Your task to perform on an android device: toggle javascript in the chrome app Image 0: 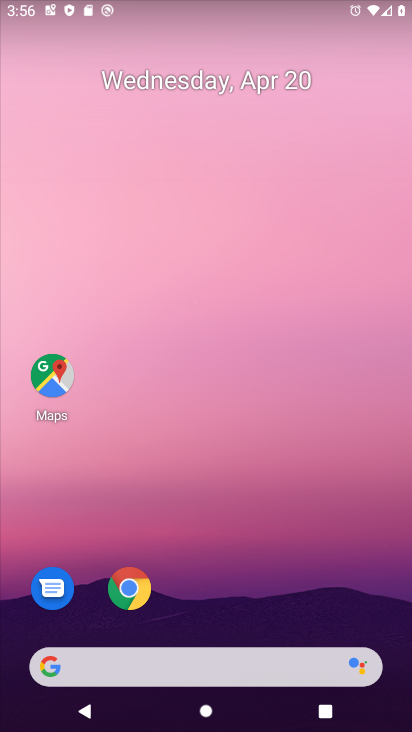
Step 0: click (142, 594)
Your task to perform on an android device: toggle javascript in the chrome app Image 1: 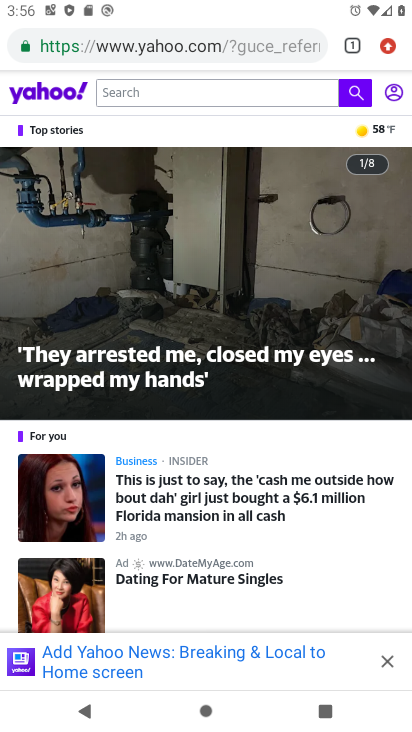
Step 1: click (388, 49)
Your task to perform on an android device: toggle javascript in the chrome app Image 2: 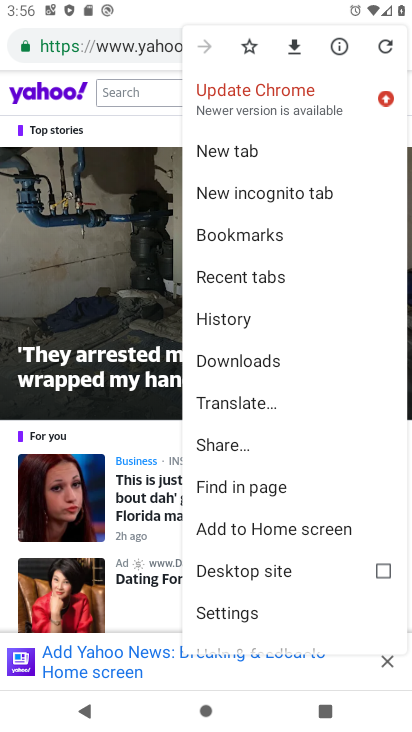
Step 2: click (251, 613)
Your task to perform on an android device: toggle javascript in the chrome app Image 3: 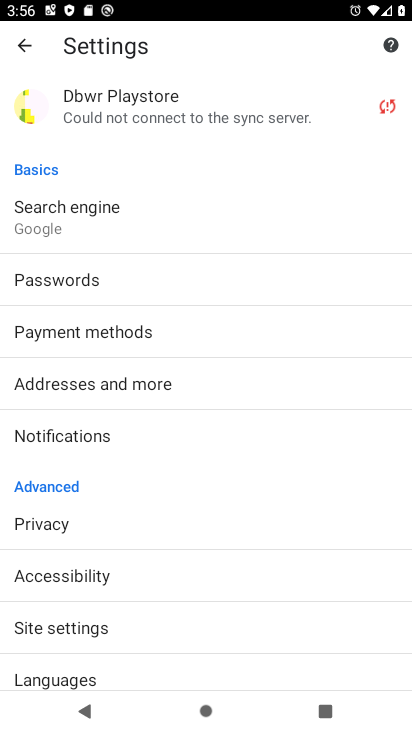
Step 3: click (135, 629)
Your task to perform on an android device: toggle javascript in the chrome app Image 4: 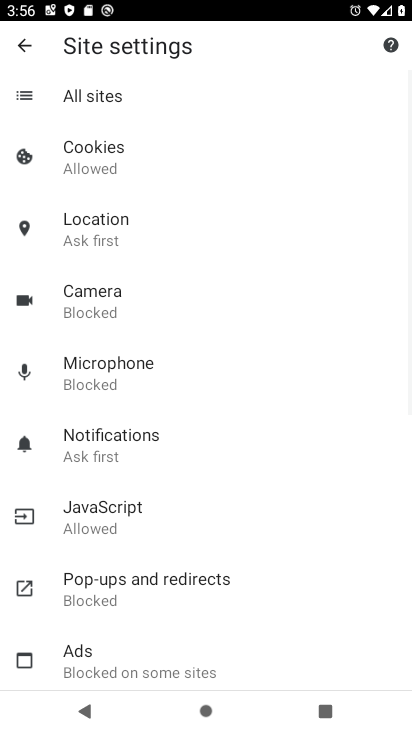
Step 4: click (127, 521)
Your task to perform on an android device: toggle javascript in the chrome app Image 5: 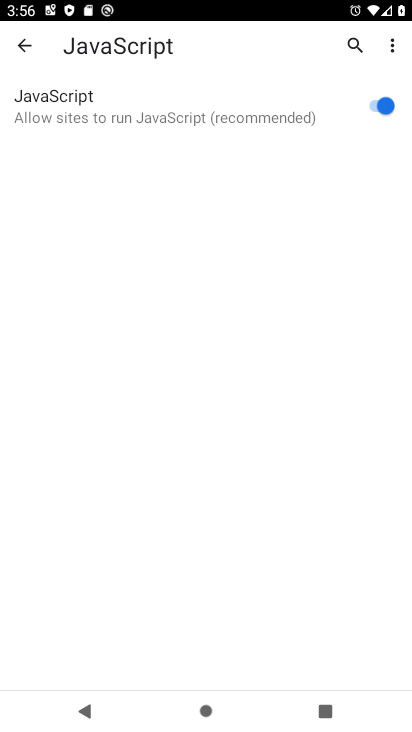
Step 5: click (373, 105)
Your task to perform on an android device: toggle javascript in the chrome app Image 6: 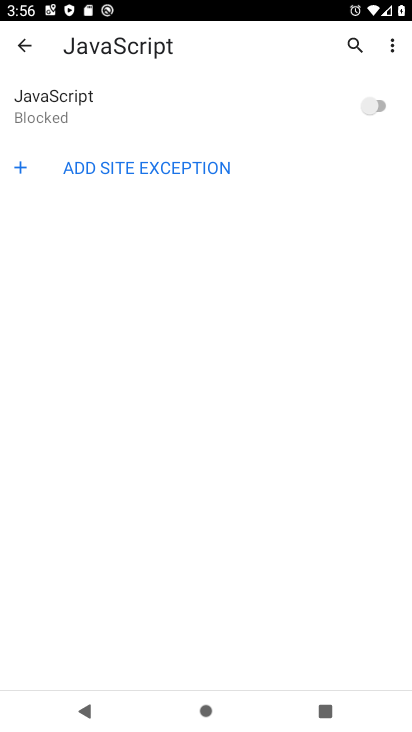
Step 6: task complete